Your task to perform on an android device: toggle priority inbox in the gmail app Image 0: 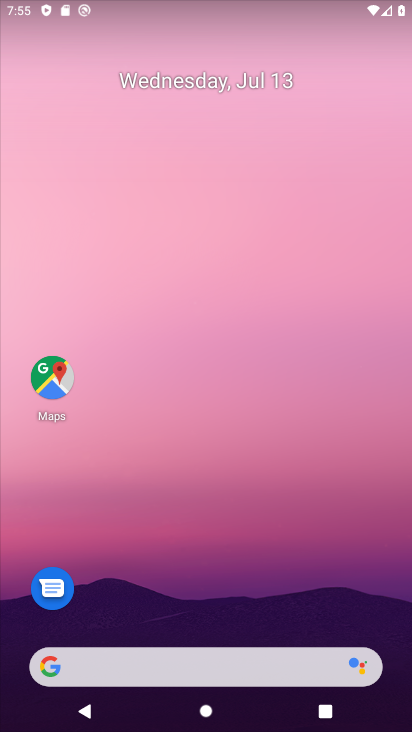
Step 0: drag from (265, 704) to (188, 120)
Your task to perform on an android device: toggle priority inbox in the gmail app Image 1: 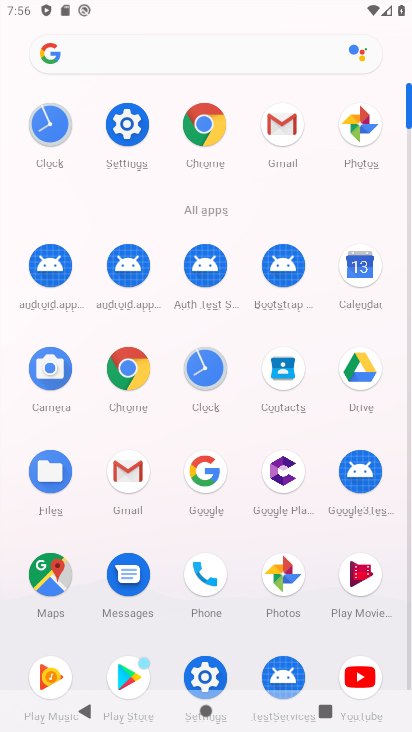
Step 1: click (284, 121)
Your task to perform on an android device: toggle priority inbox in the gmail app Image 2: 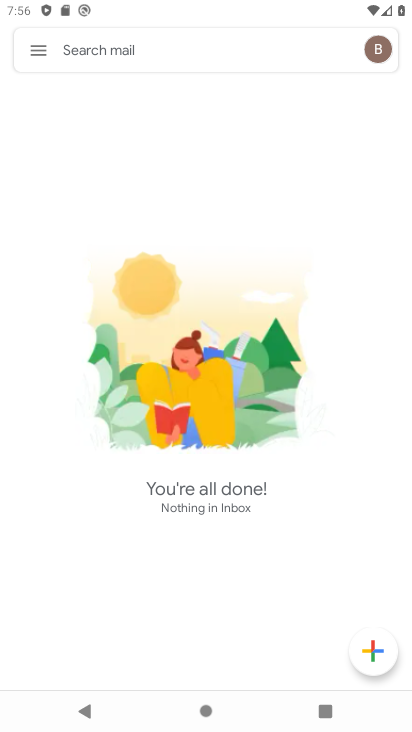
Step 2: click (32, 55)
Your task to perform on an android device: toggle priority inbox in the gmail app Image 3: 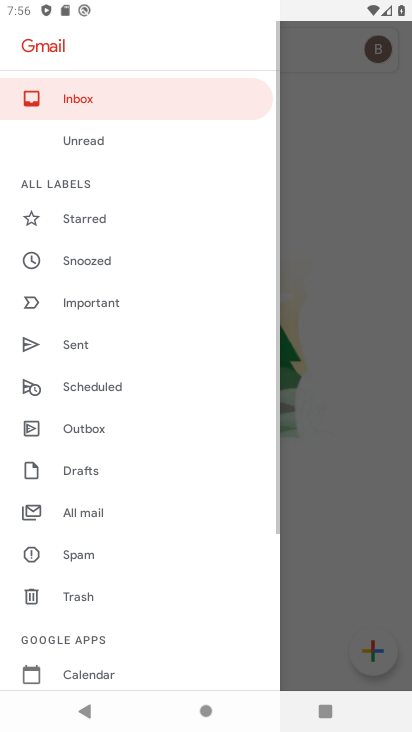
Step 3: drag from (207, 636) to (225, 114)
Your task to perform on an android device: toggle priority inbox in the gmail app Image 4: 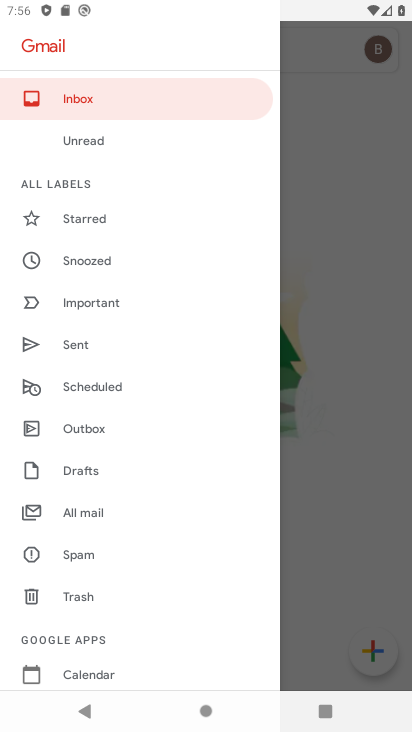
Step 4: drag from (124, 596) to (209, 72)
Your task to perform on an android device: toggle priority inbox in the gmail app Image 5: 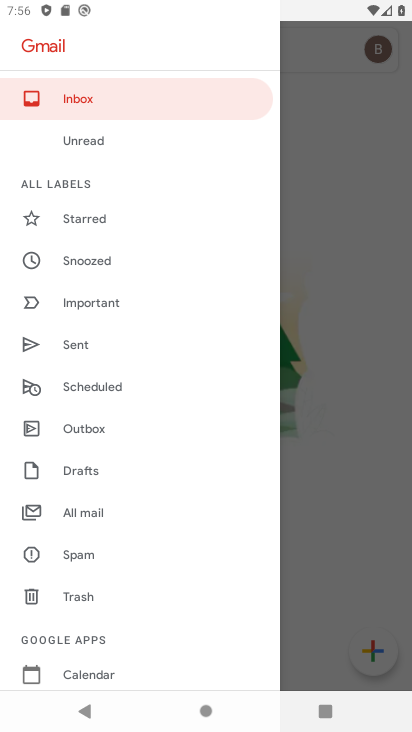
Step 5: drag from (122, 640) to (396, 374)
Your task to perform on an android device: toggle priority inbox in the gmail app Image 6: 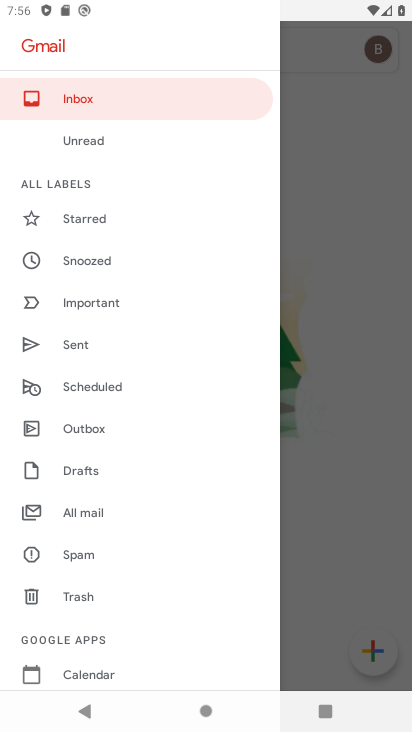
Step 6: drag from (48, 581) to (228, 28)
Your task to perform on an android device: toggle priority inbox in the gmail app Image 7: 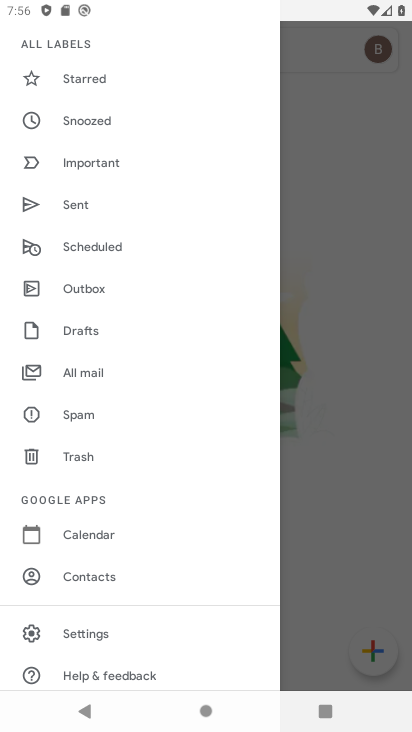
Step 7: click (67, 631)
Your task to perform on an android device: toggle priority inbox in the gmail app Image 8: 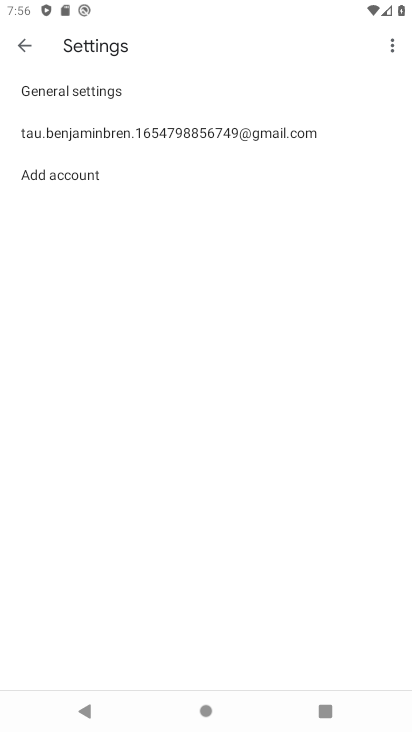
Step 8: click (284, 134)
Your task to perform on an android device: toggle priority inbox in the gmail app Image 9: 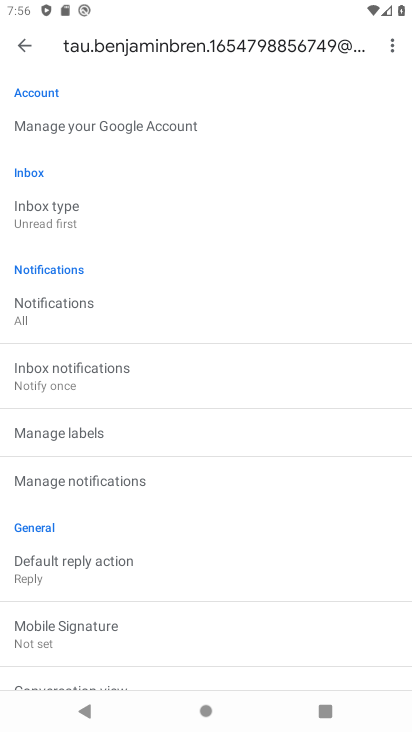
Step 9: drag from (199, 609) to (121, 131)
Your task to perform on an android device: toggle priority inbox in the gmail app Image 10: 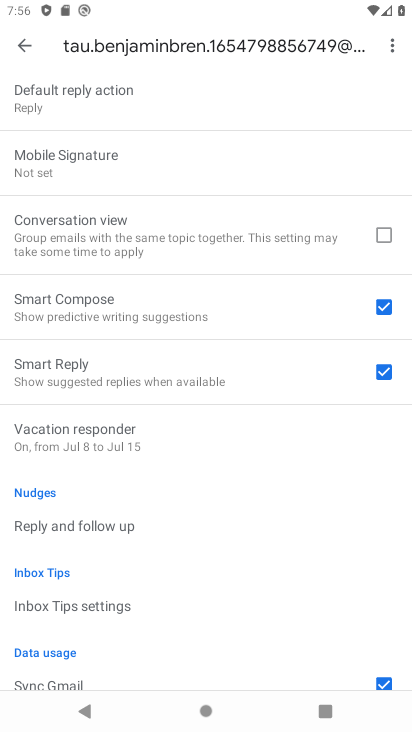
Step 10: drag from (263, 141) to (183, 717)
Your task to perform on an android device: toggle priority inbox in the gmail app Image 11: 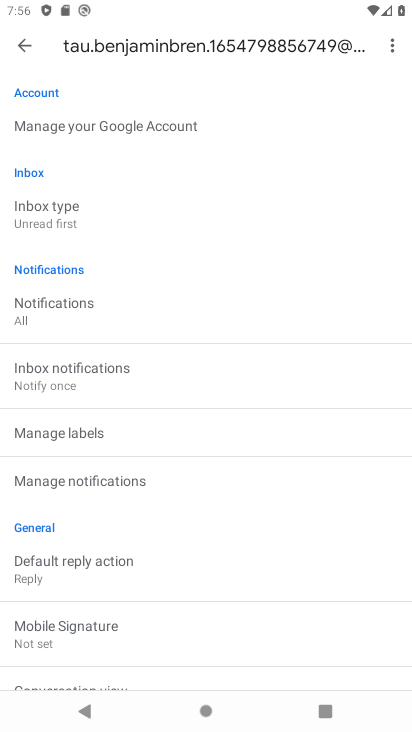
Step 11: click (66, 213)
Your task to perform on an android device: toggle priority inbox in the gmail app Image 12: 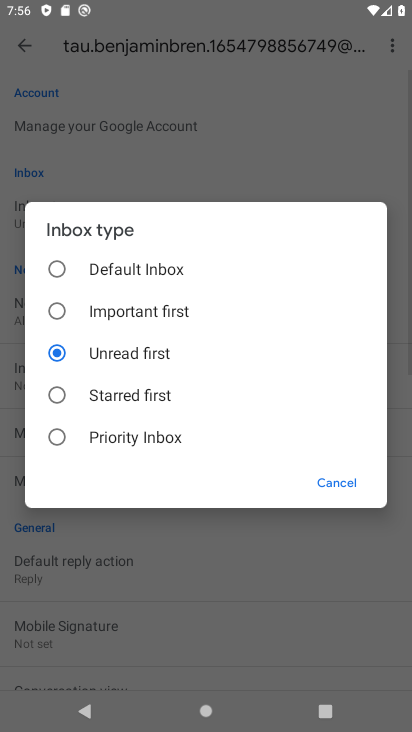
Step 12: click (124, 438)
Your task to perform on an android device: toggle priority inbox in the gmail app Image 13: 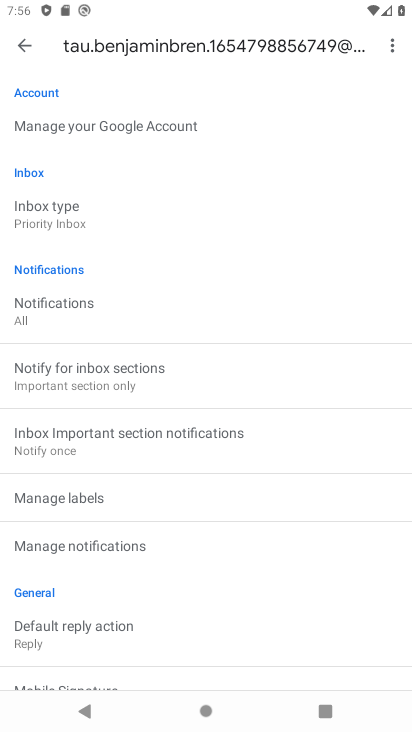
Step 13: task complete